Your task to perform on an android device: Open accessibility settings Image 0: 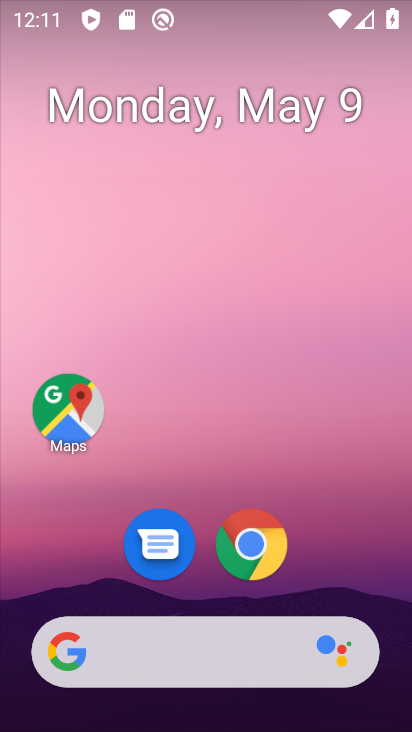
Step 0: drag from (370, 471) to (371, 18)
Your task to perform on an android device: Open accessibility settings Image 1: 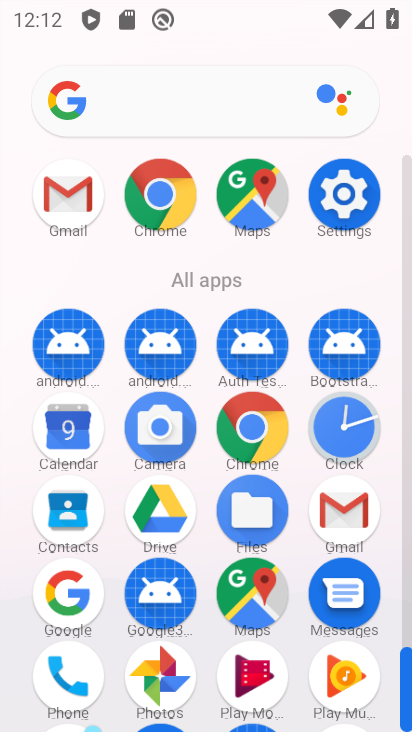
Step 1: click (346, 194)
Your task to perform on an android device: Open accessibility settings Image 2: 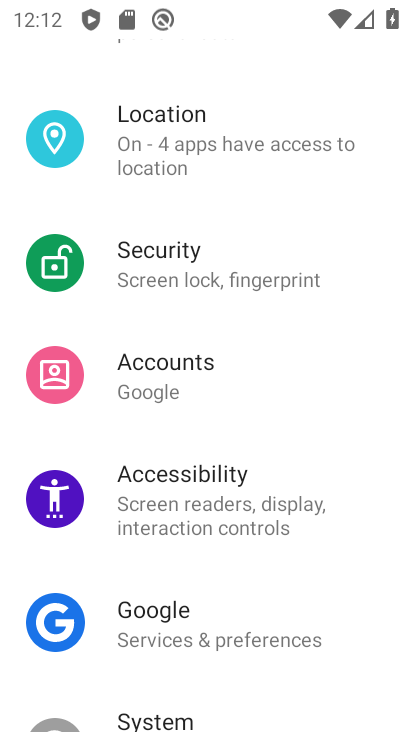
Step 2: drag from (222, 498) to (278, 166)
Your task to perform on an android device: Open accessibility settings Image 3: 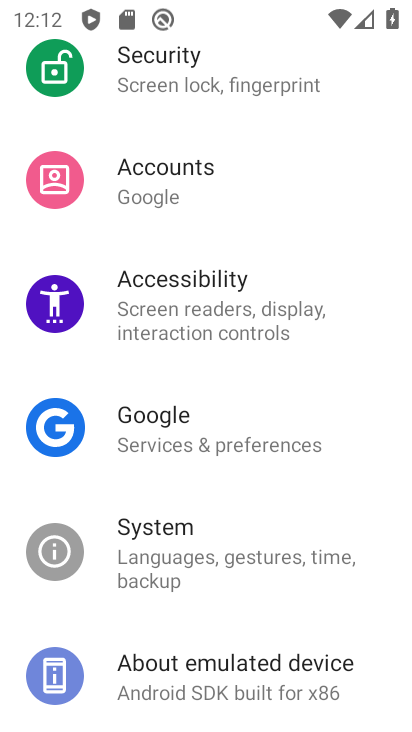
Step 3: click (234, 306)
Your task to perform on an android device: Open accessibility settings Image 4: 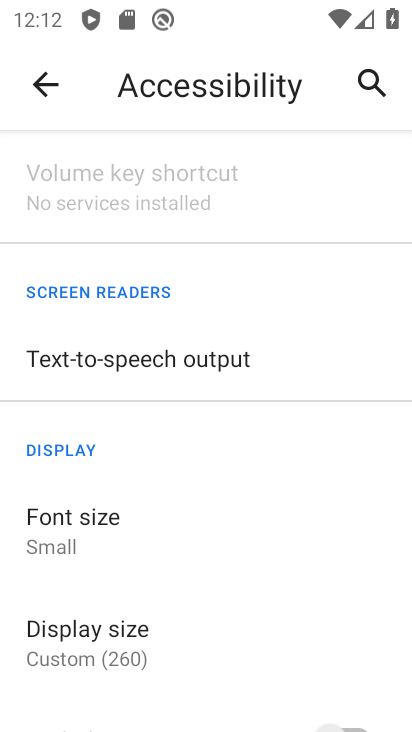
Step 4: task complete